Your task to perform on an android device: turn on location history Image 0: 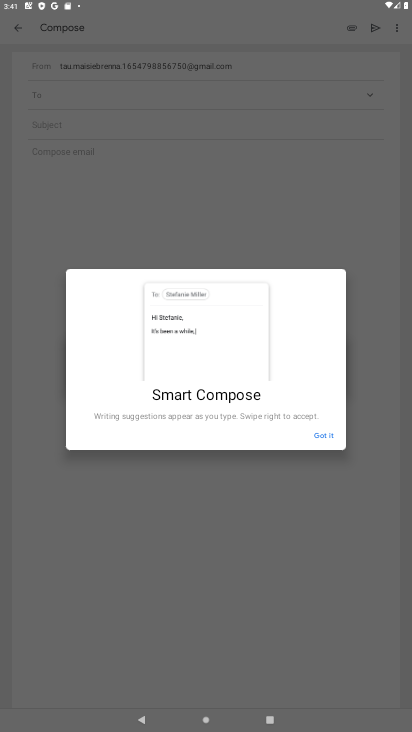
Step 0: press home button
Your task to perform on an android device: turn on location history Image 1: 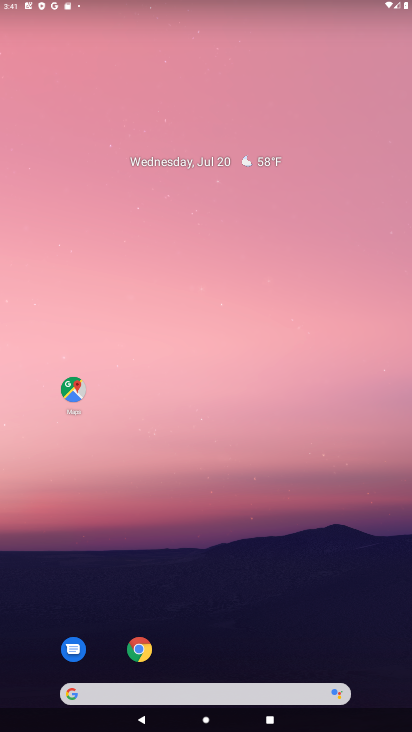
Step 1: drag from (235, 726) to (235, 161)
Your task to perform on an android device: turn on location history Image 2: 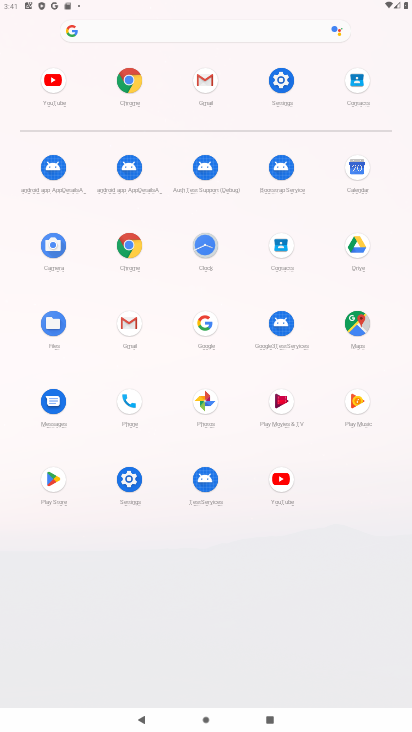
Step 2: click (283, 85)
Your task to perform on an android device: turn on location history Image 3: 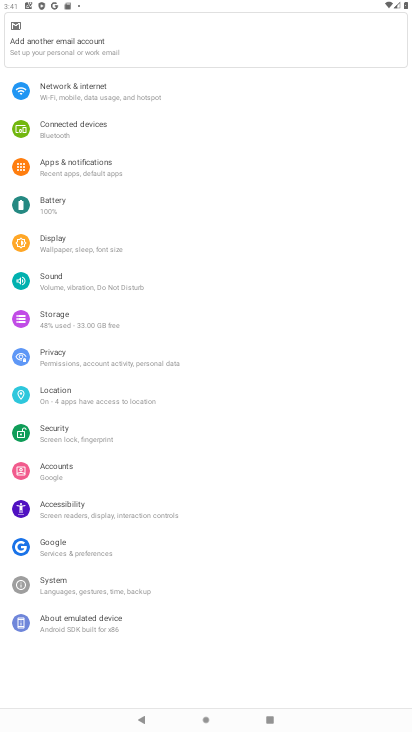
Step 3: click (76, 391)
Your task to perform on an android device: turn on location history Image 4: 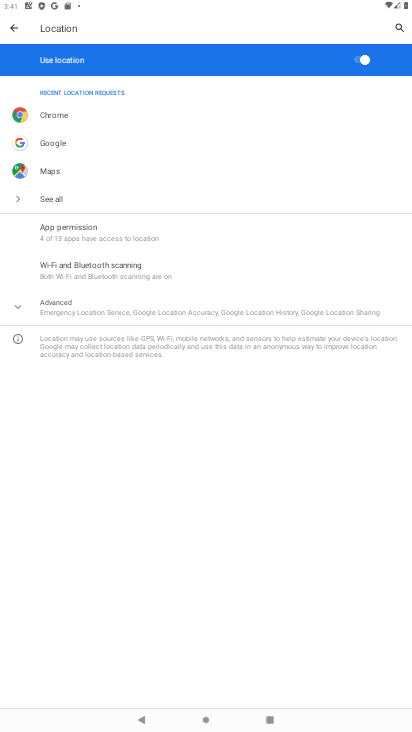
Step 4: click (126, 310)
Your task to perform on an android device: turn on location history Image 5: 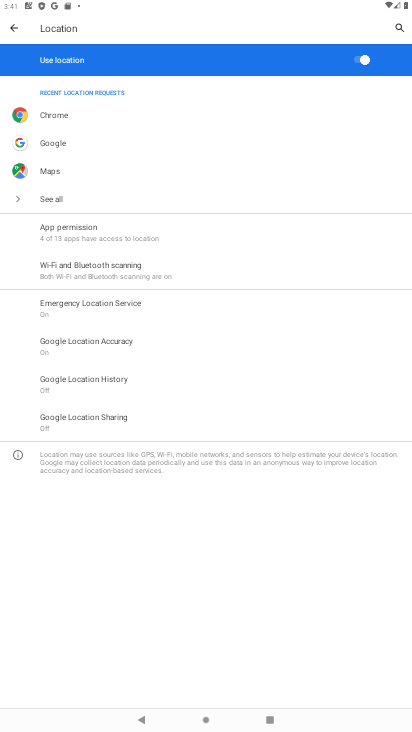
Step 5: click (110, 380)
Your task to perform on an android device: turn on location history Image 6: 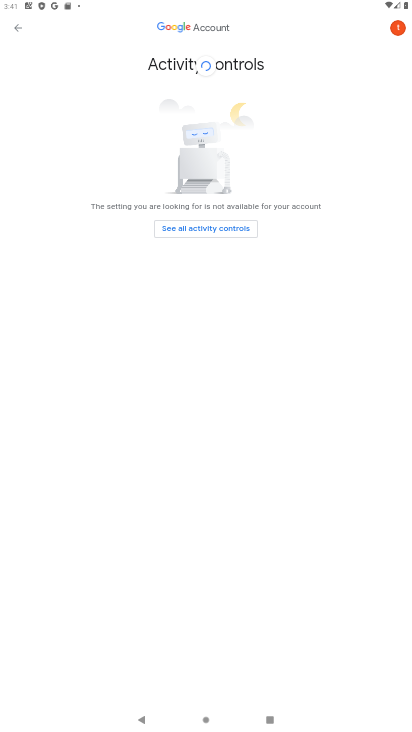
Step 6: click (209, 231)
Your task to perform on an android device: turn on location history Image 7: 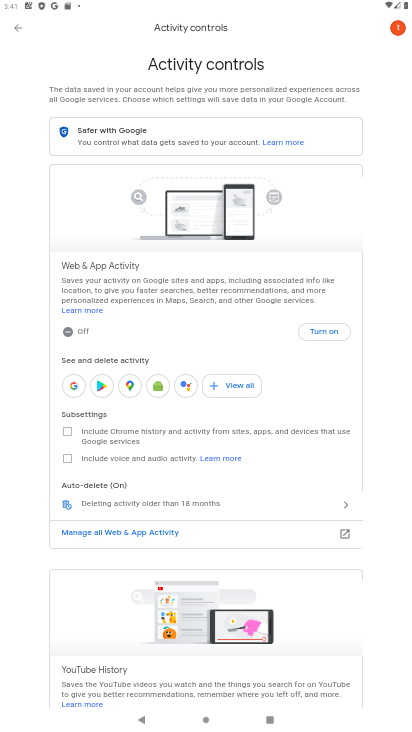
Step 7: click (329, 329)
Your task to perform on an android device: turn on location history Image 8: 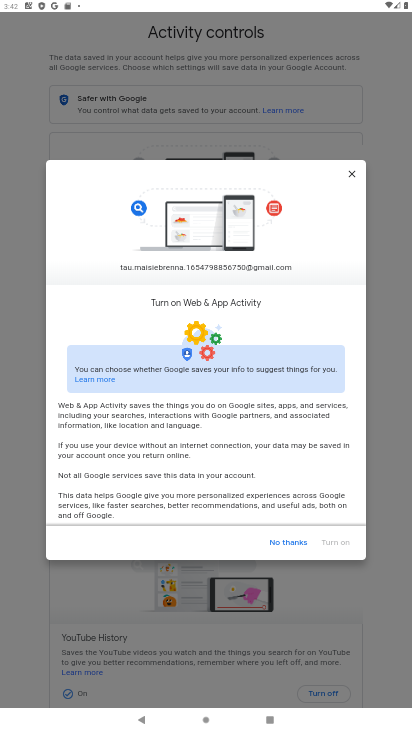
Step 8: drag from (320, 487) to (299, 284)
Your task to perform on an android device: turn on location history Image 9: 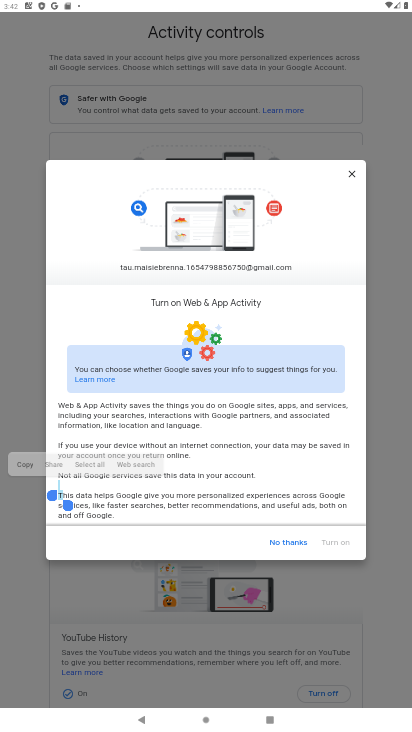
Step 9: drag from (276, 499) to (276, 336)
Your task to perform on an android device: turn on location history Image 10: 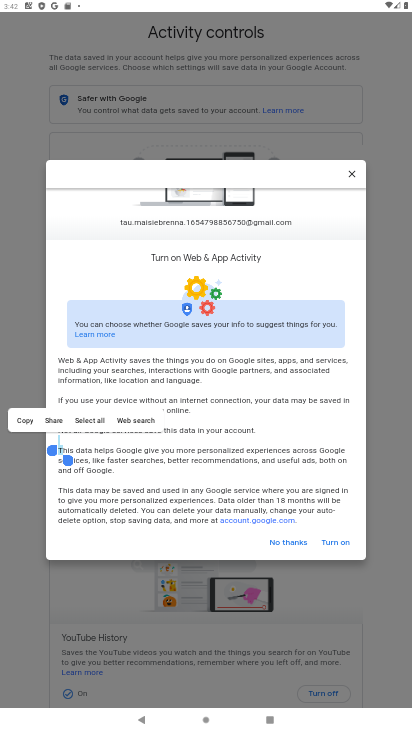
Step 10: click (335, 542)
Your task to perform on an android device: turn on location history Image 11: 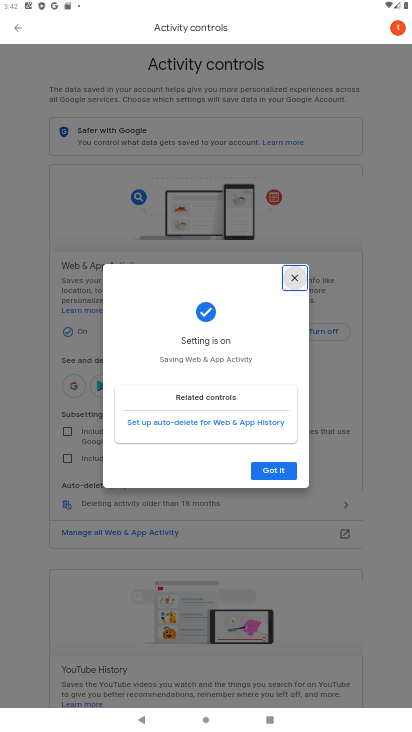
Step 11: click (266, 467)
Your task to perform on an android device: turn on location history Image 12: 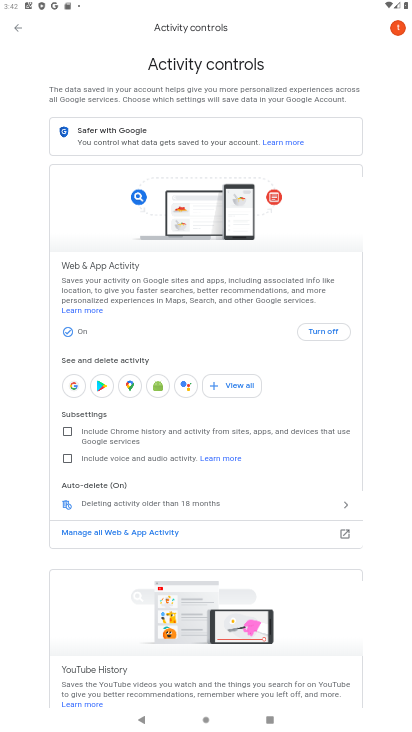
Step 12: task complete